Your task to perform on an android device: uninstall "Lyft - Rideshare, Bikes, Scooters & Transit" Image 0: 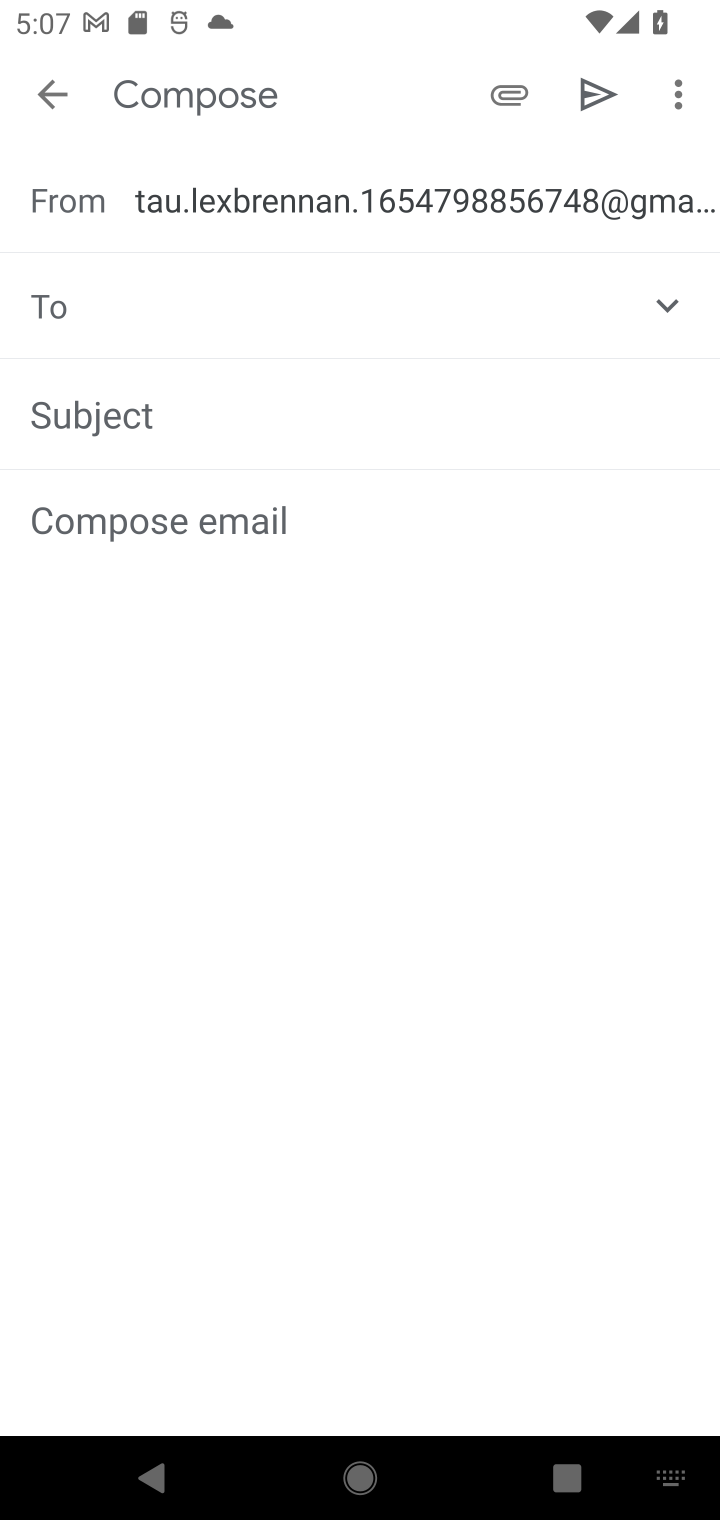
Step 0: press home button
Your task to perform on an android device: uninstall "Lyft - Rideshare, Bikes, Scooters & Transit" Image 1: 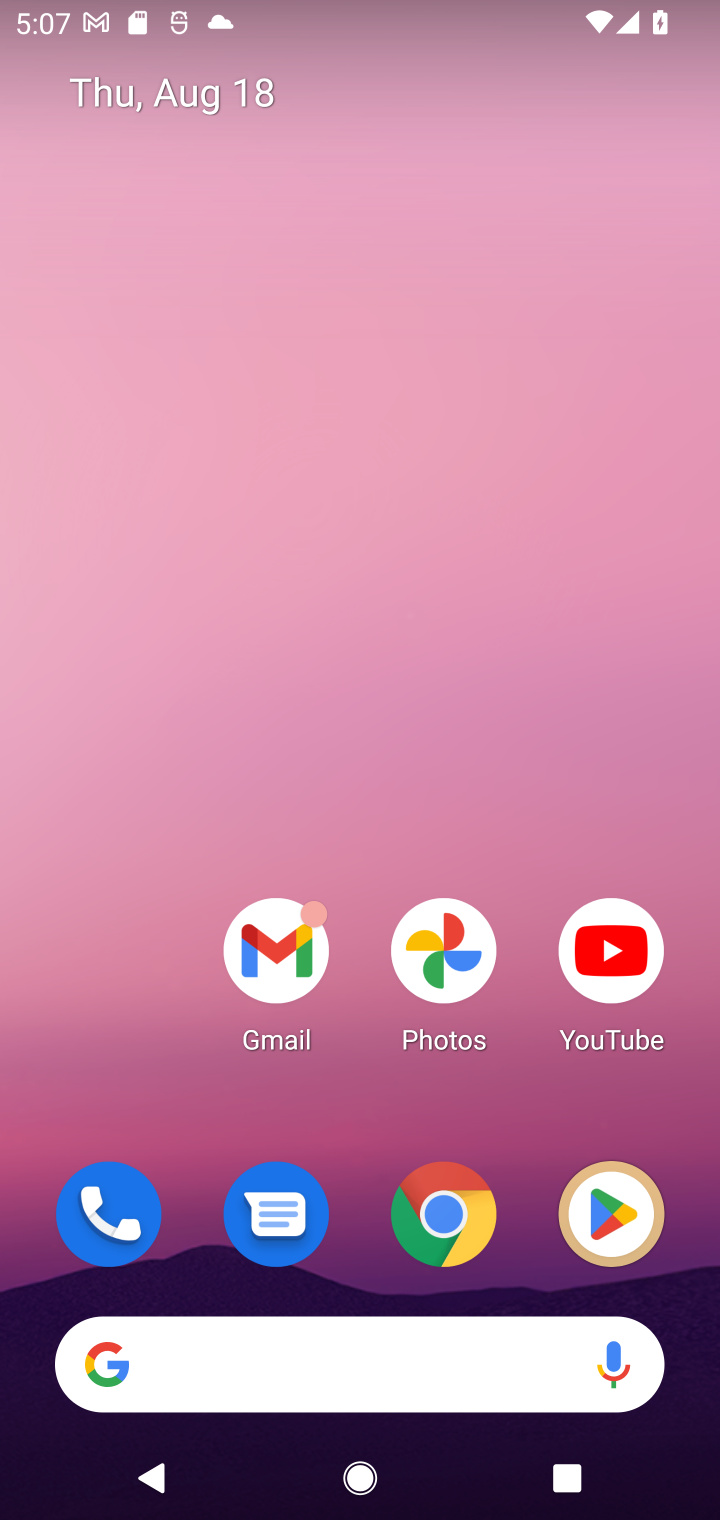
Step 1: click (590, 1190)
Your task to perform on an android device: uninstall "Lyft - Rideshare, Bikes, Scooters & Transit" Image 2: 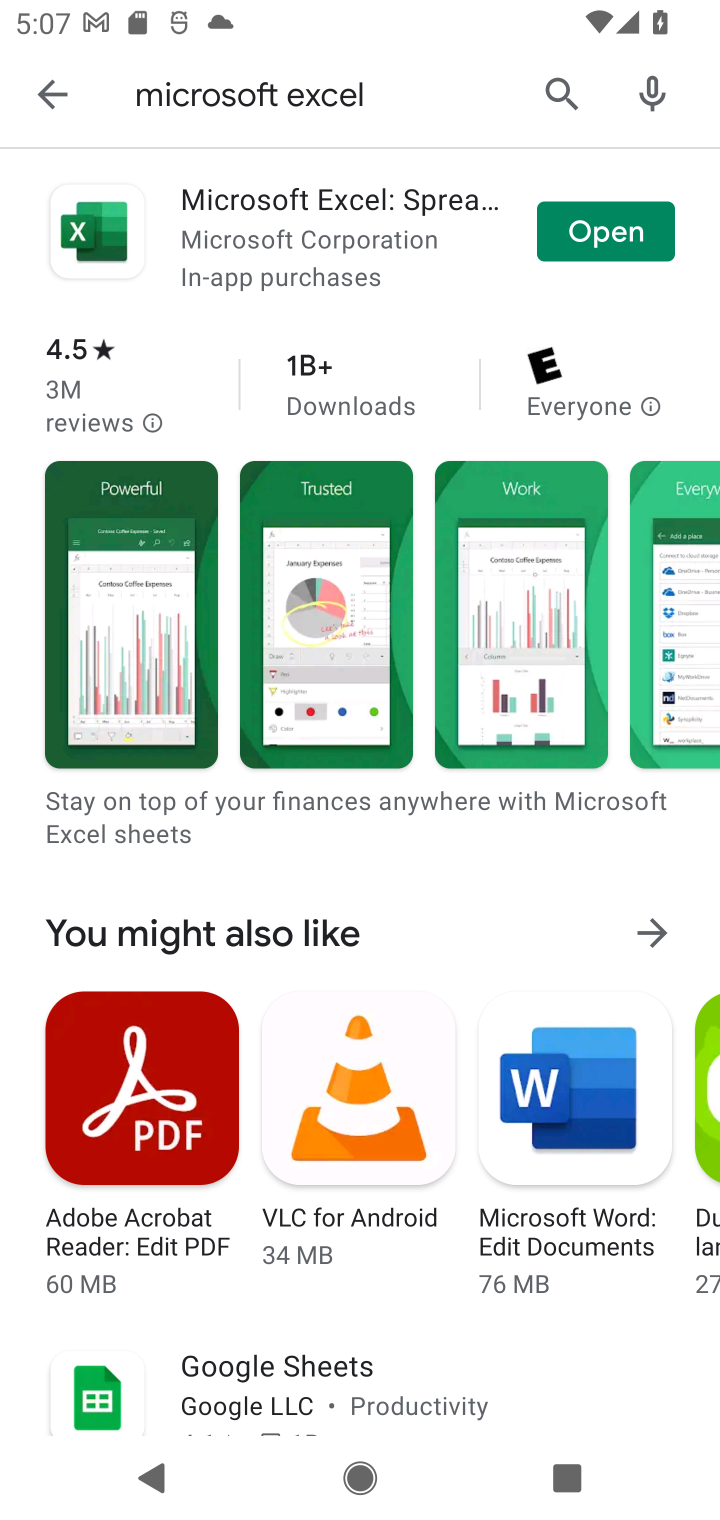
Step 2: click (265, 104)
Your task to perform on an android device: uninstall "Lyft - Rideshare, Bikes, Scooters & Transit" Image 3: 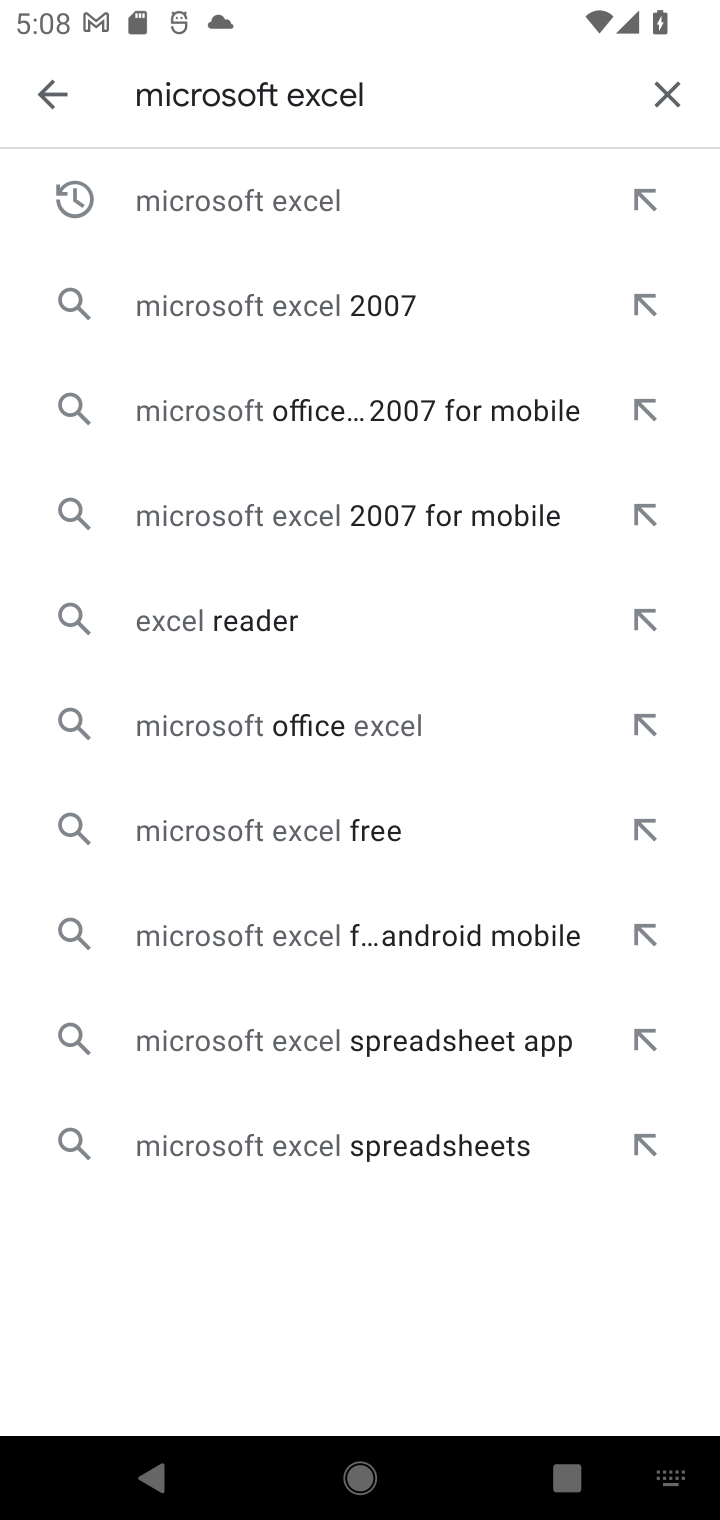
Step 3: click (648, 88)
Your task to perform on an android device: uninstall "Lyft - Rideshare, Bikes, Scooters & Transit" Image 4: 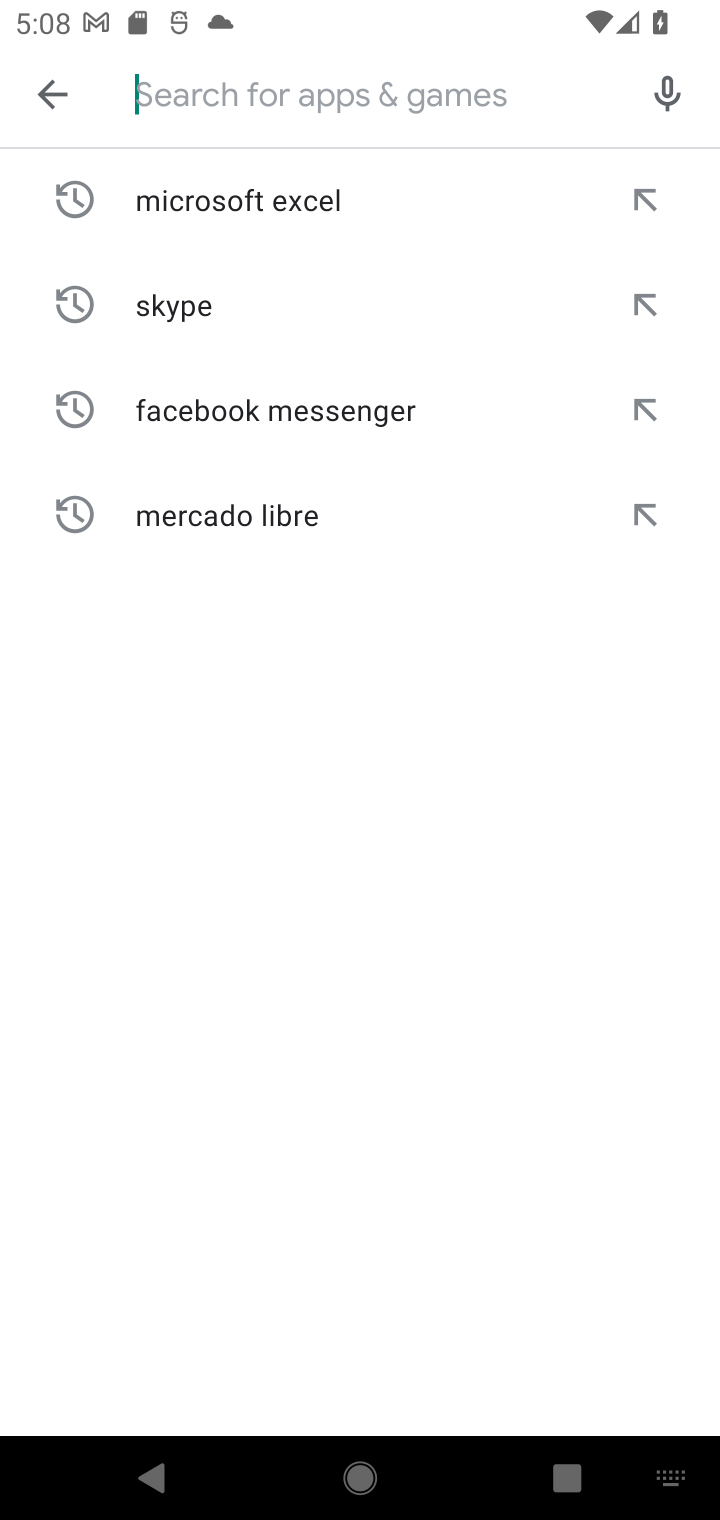
Step 4: type "lyft"
Your task to perform on an android device: uninstall "Lyft - Rideshare, Bikes, Scooters & Transit" Image 5: 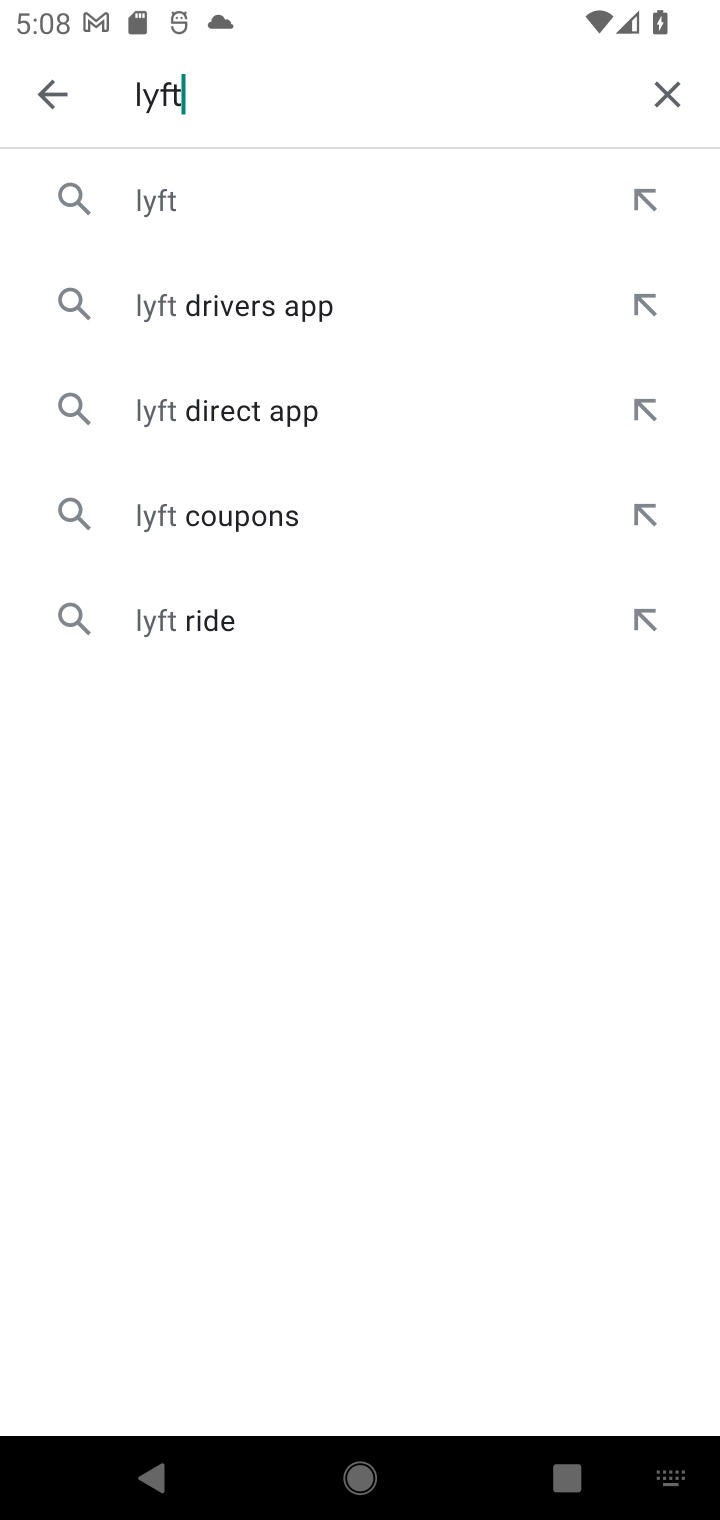
Step 5: click (196, 202)
Your task to perform on an android device: uninstall "Lyft - Rideshare, Bikes, Scooters & Transit" Image 6: 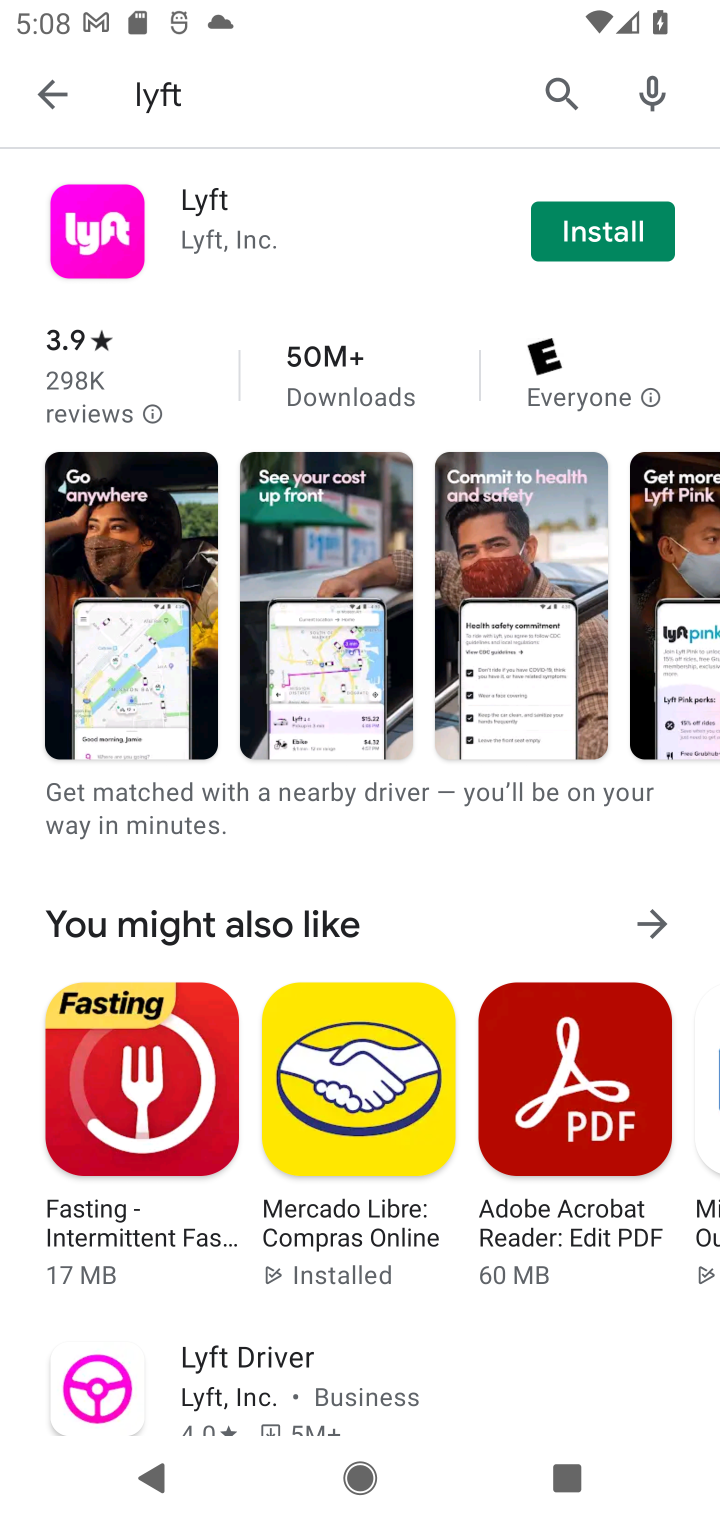
Step 6: task complete